Your task to perform on an android device: Open settings Image 0: 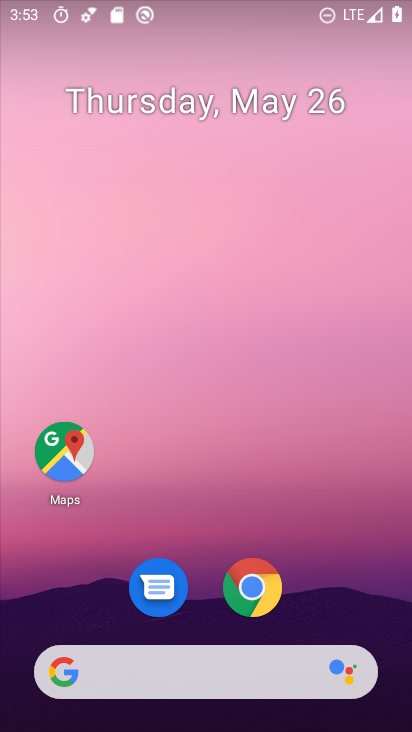
Step 0: drag from (336, 566) to (306, 0)
Your task to perform on an android device: Open settings Image 1: 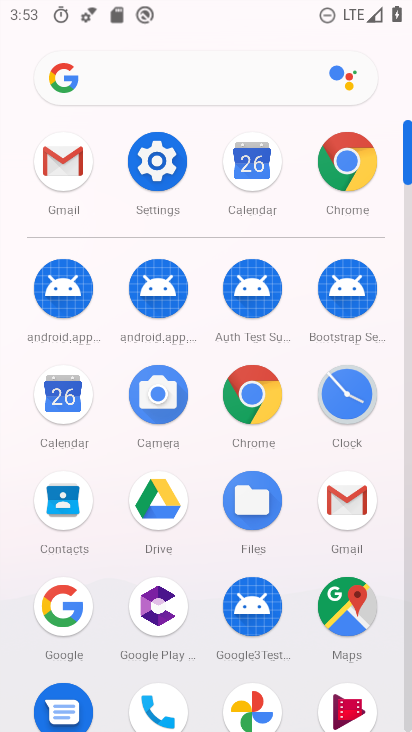
Step 1: click (176, 150)
Your task to perform on an android device: Open settings Image 2: 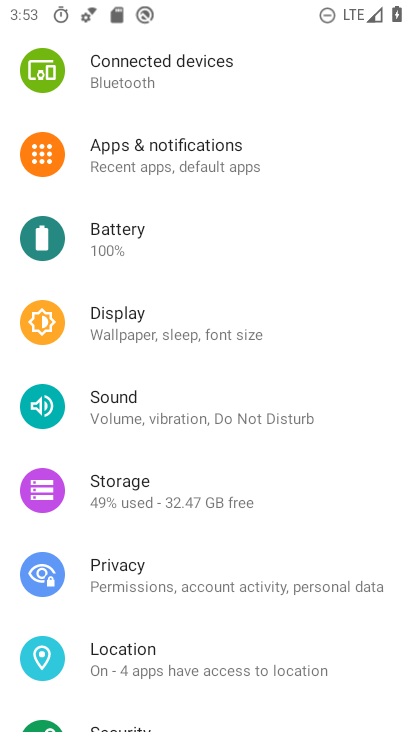
Step 2: task complete